Your task to perform on an android device: Go to settings Image 0: 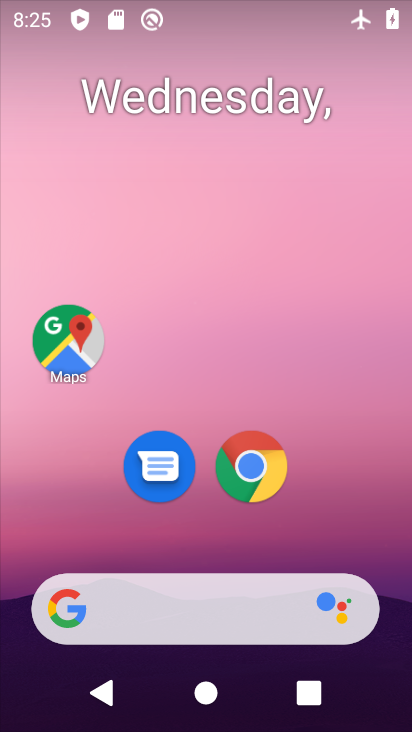
Step 0: drag from (348, 512) to (363, 53)
Your task to perform on an android device: Go to settings Image 1: 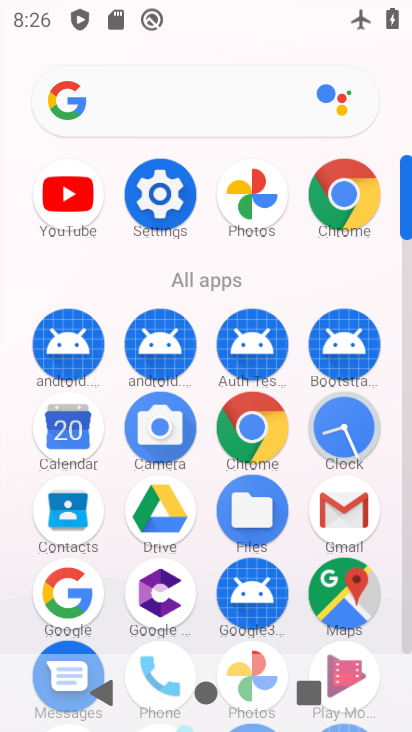
Step 1: click (147, 193)
Your task to perform on an android device: Go to settings Image 2: 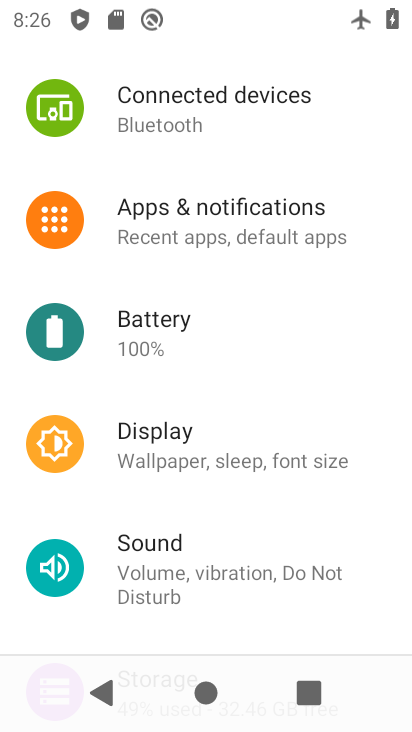
Step 2: task complete